Your task to perform on an android device: Search for usb-c on target.com, select the first entry, and add it to the cart. Image 0: 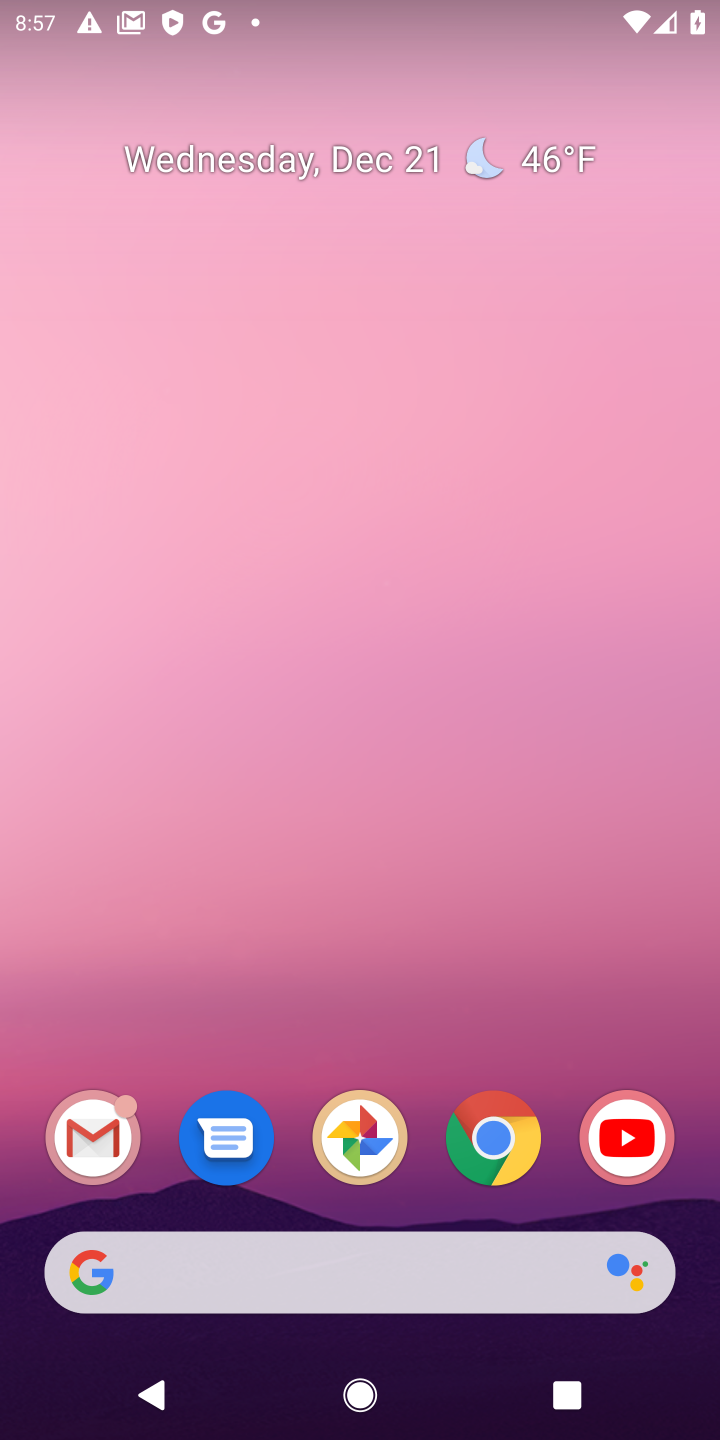
Step 0: click (501, 1155)
Your task to perform on an android device: Search for usb-c on target.com, select the first entry, and add it to the cart. Image 1: 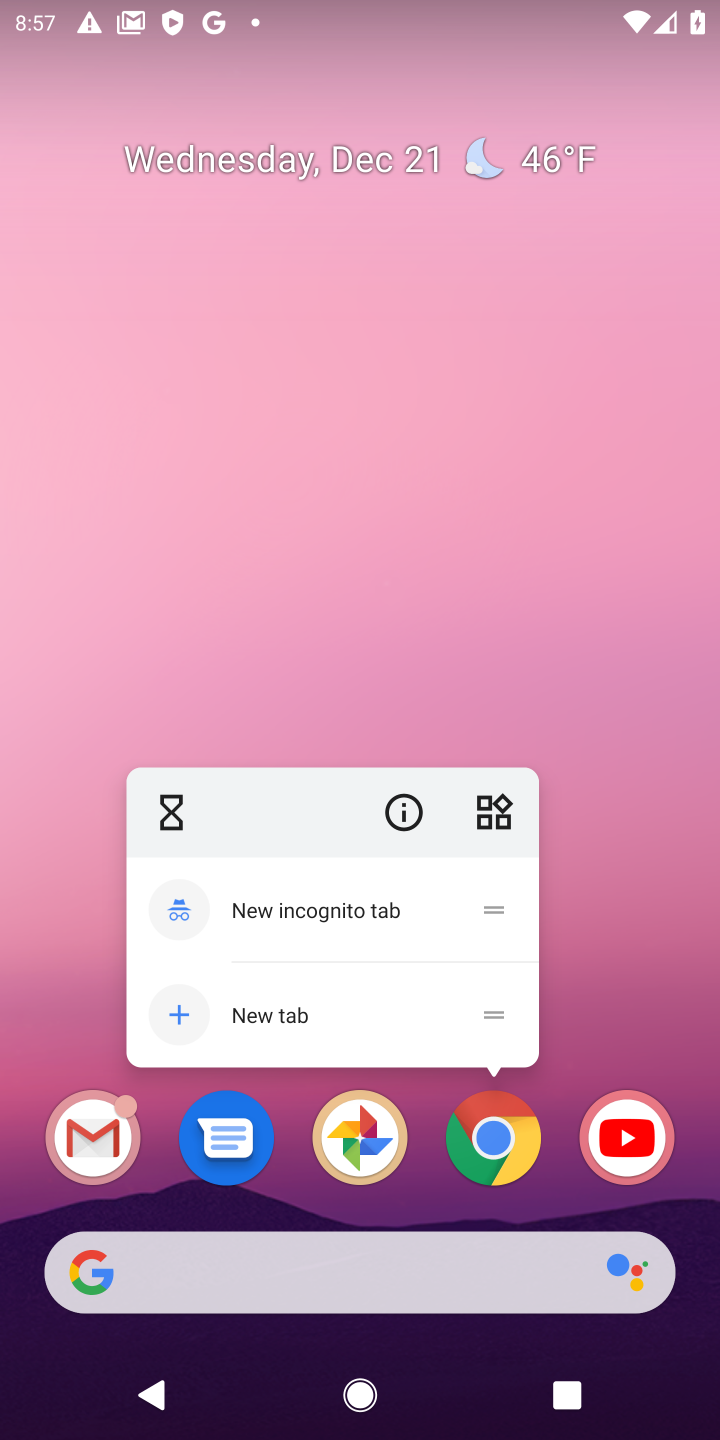
Step 1: click (501, 1155)
Your task to perform on an android device: Search for usb-c on target.com, select the first entry, and add it to the cart. Image 2: 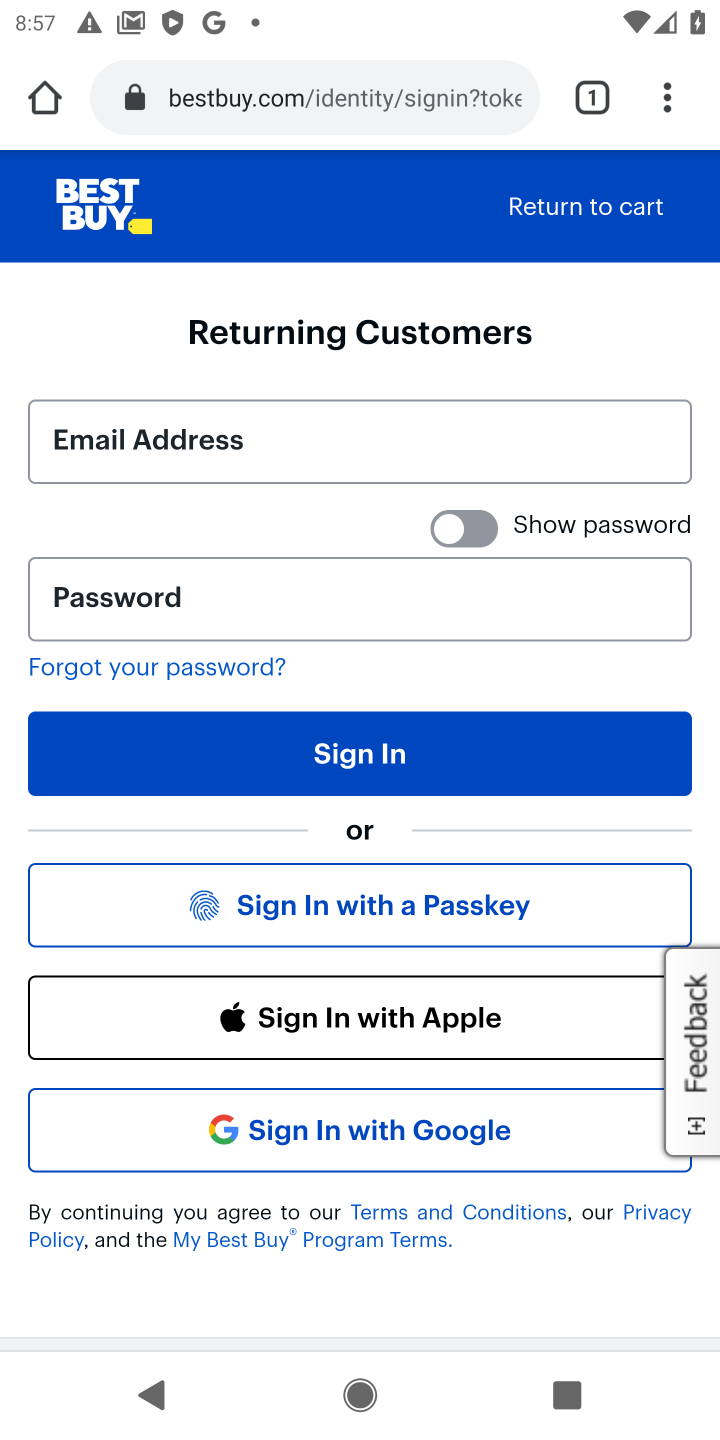
Step 2: click (265, 106)
Your task to perform on an android device: Search for usb-c on target.com, select the first entry, and add it to the cart. Image 3: 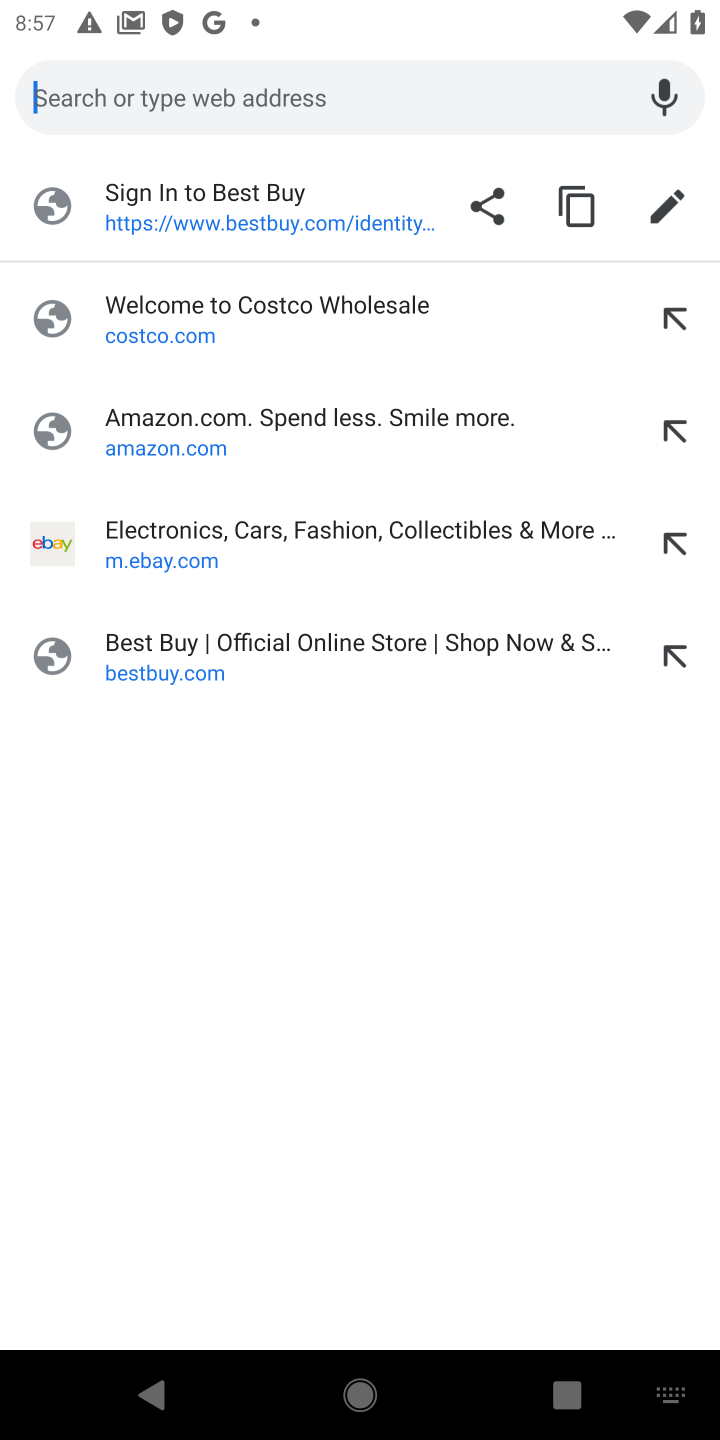
Step 3: type "target.com"
Your task to perform on an android device: Search for usb-c on target.com, select the first entry, and add it to the cart. Image 4: 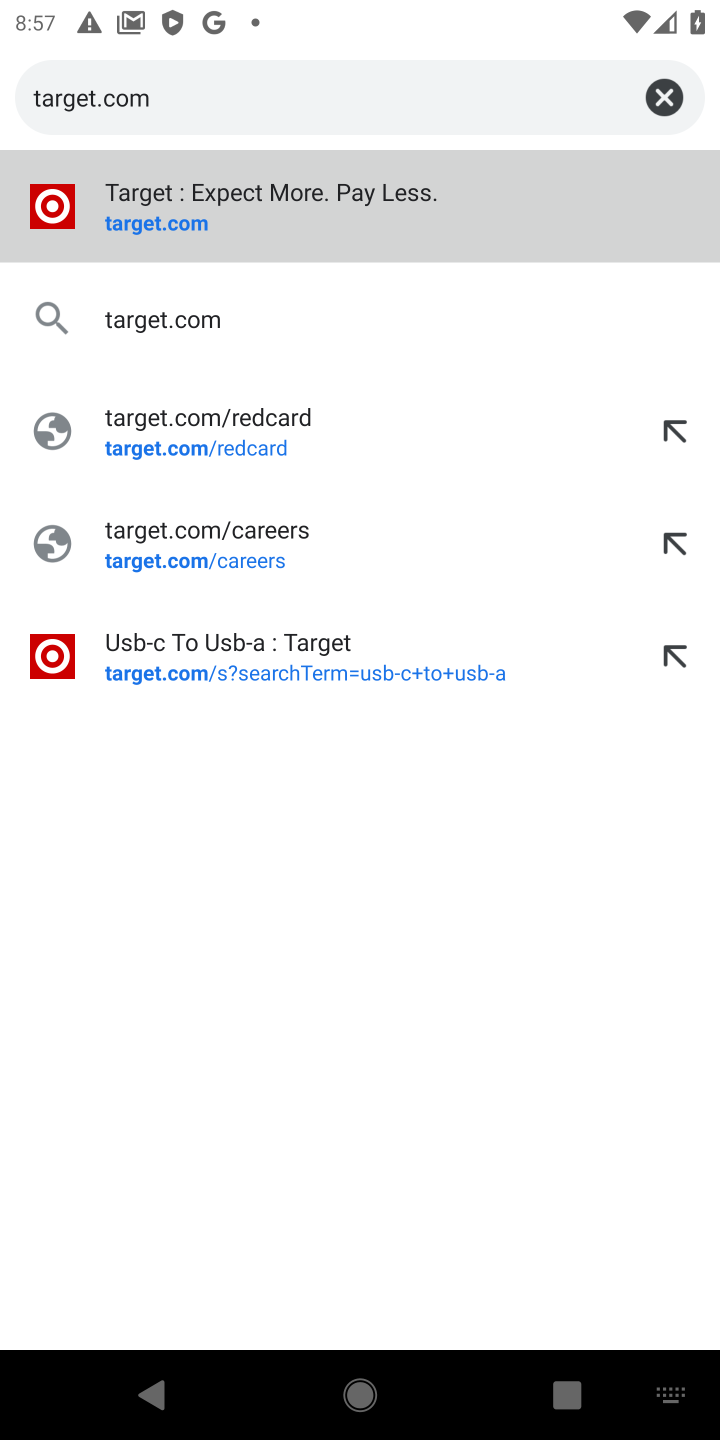
Step 4: click (151, 228)
Your task to perform on an android device: Search for usb-c on target.com, select the first entry, and add it to the cart. Image 5: 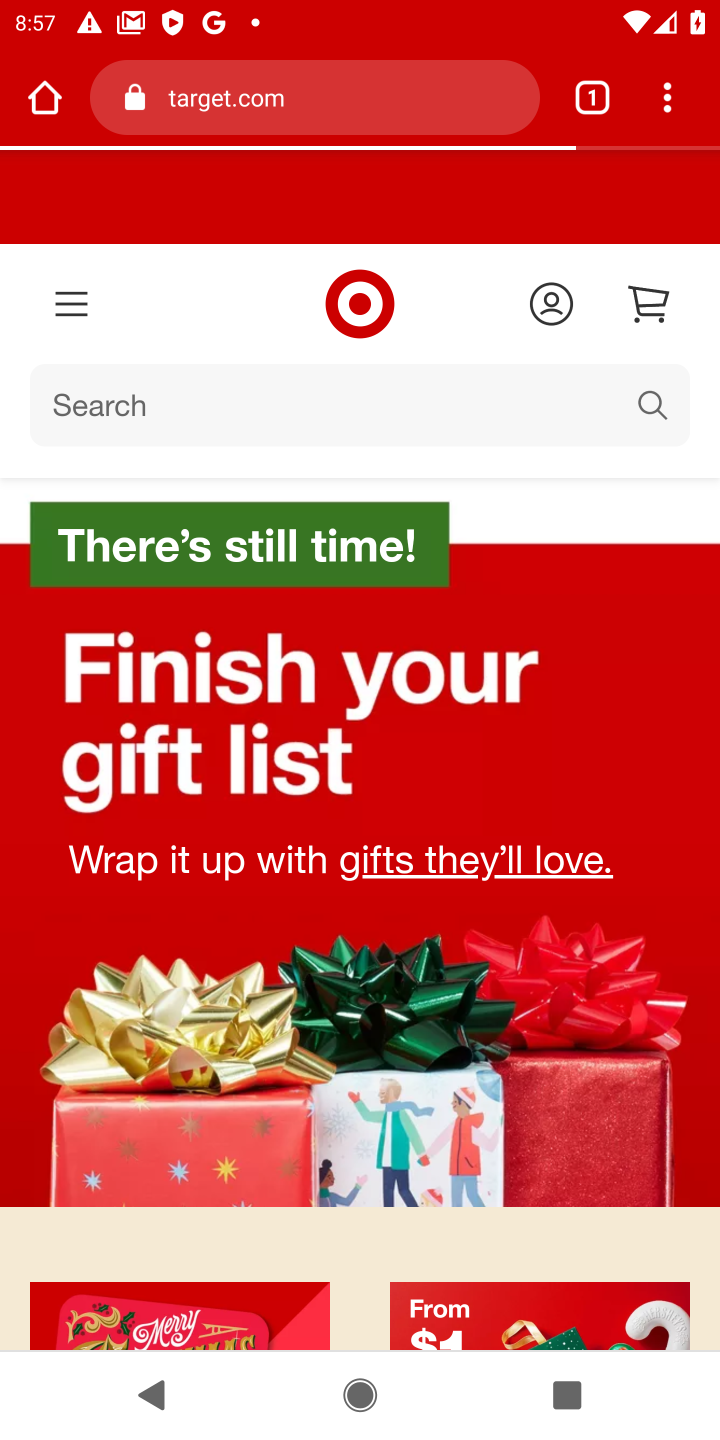
Step 5: click (128, 402)
Your task to perform on an android device: Search for usb-c on target.com, select the first entry, and add it to the cart. Image 6: 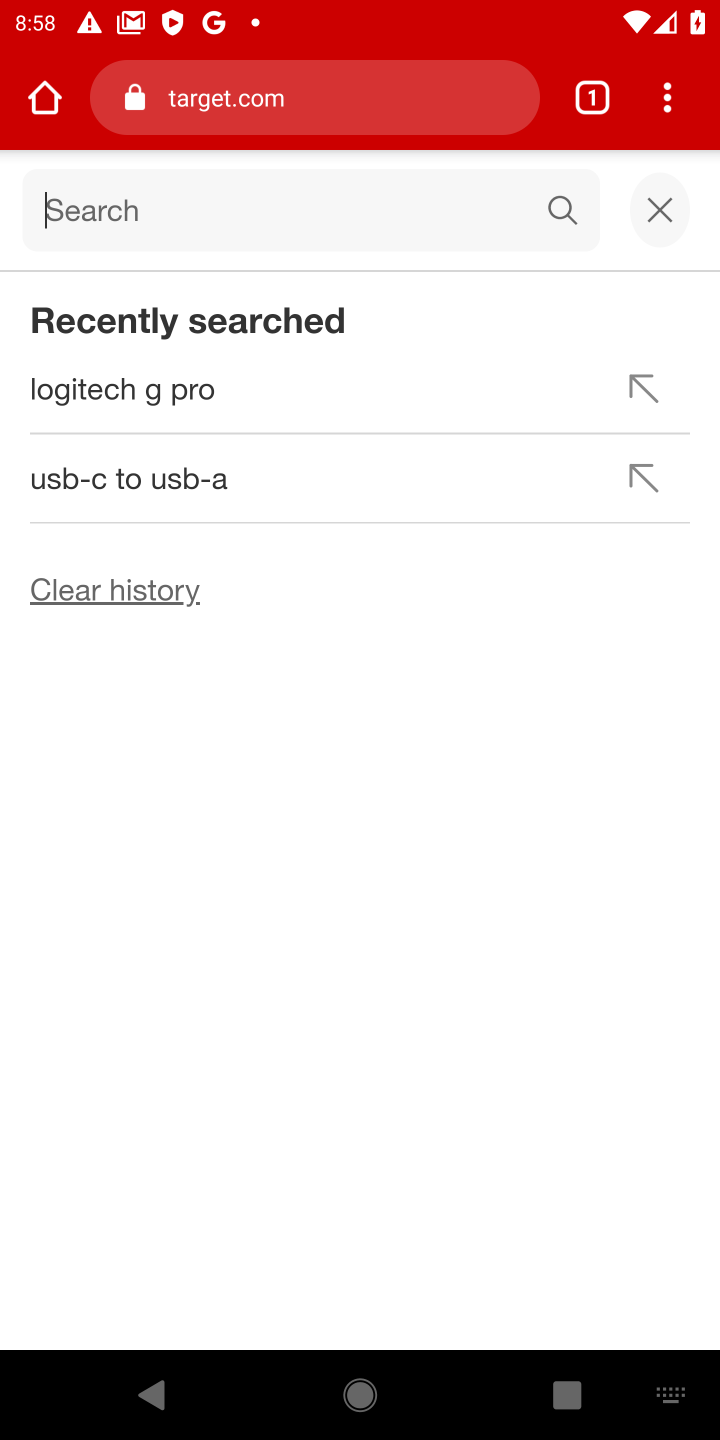
Step 6: type "usb-c"
Your task to perform on an android device: Search for usb-c on target.com, select the first entry, and add it to the cart. Image 7: 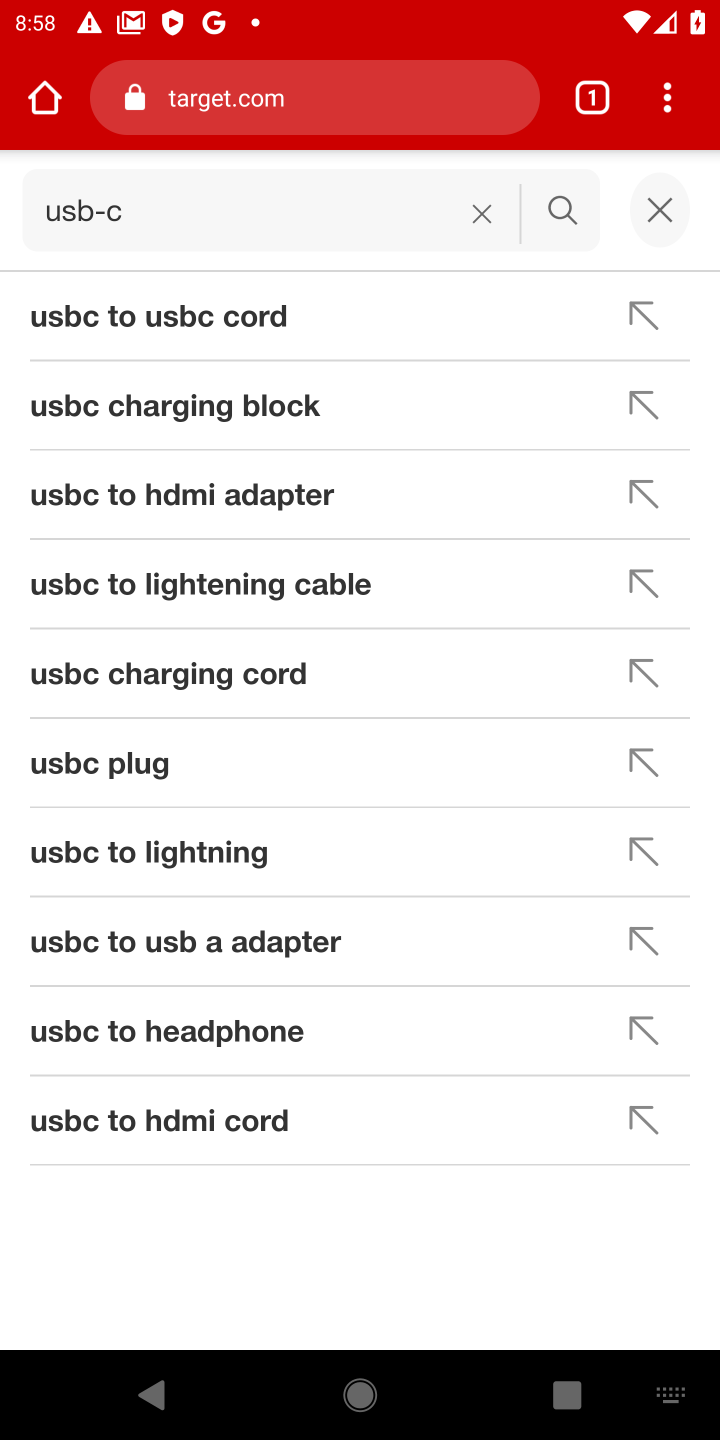
Step 7: click (564, 217)
Your task to perform on an android device: Search for usb-c on target.com, select the first entry, and add it to the cart. Image 8: 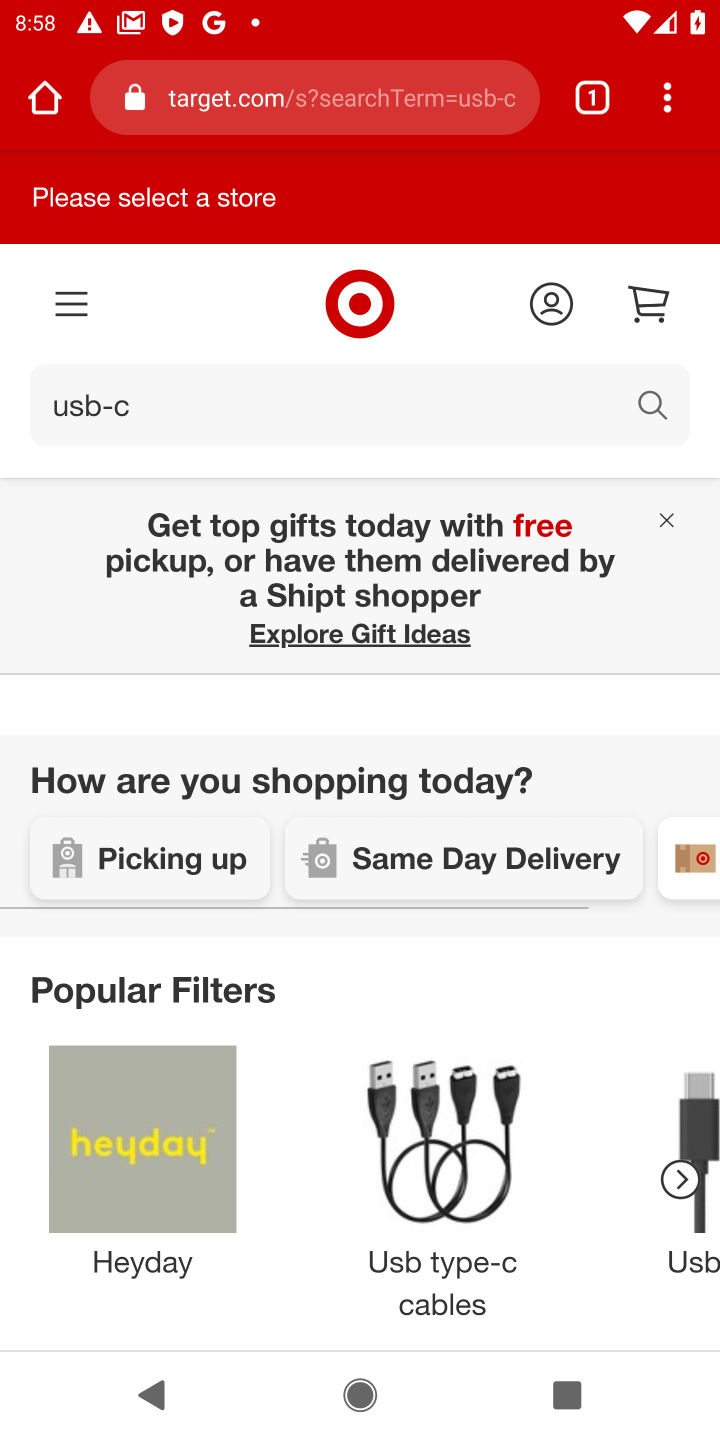
Step 8: task complete